Your task to perform on an android device: What's the news in Taiwan? Image 0: 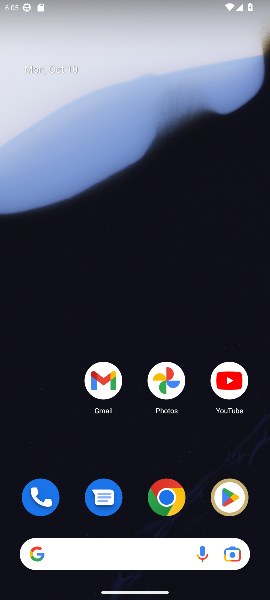
Step 0: drag from (111, 461) to (114, 205)
Your task to perform on an android device: What's the news in Taiwan? Image 1: 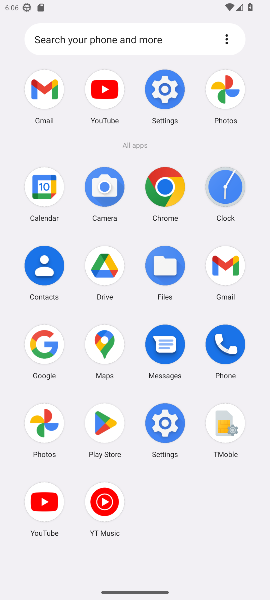
Step 1: click (153, 189)
Your task to perform on an android device: What's the news in Taiwan? Image 2: 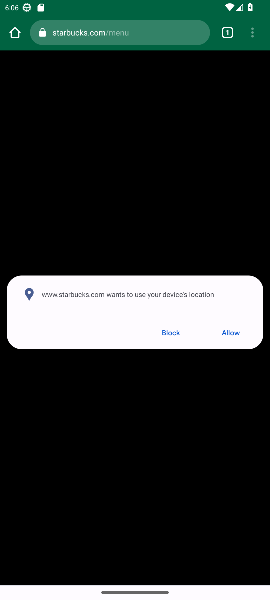
Step 2: press home button
Your task to perform on an android device: What's the news in Taiwan? Image 3: 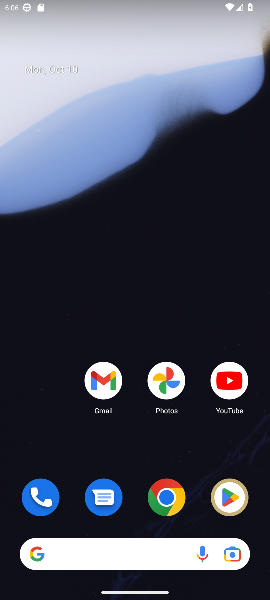
Step 3: drag from (98, 476) to (105, 241)
Your task to perform on an android device: What's the news in Taiwan? Image 4: 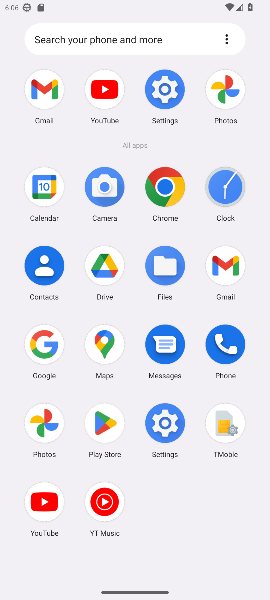
Step 4: click (45, 343)
Your task to perform on an android device: What's the news in Taiwan? Image 5: 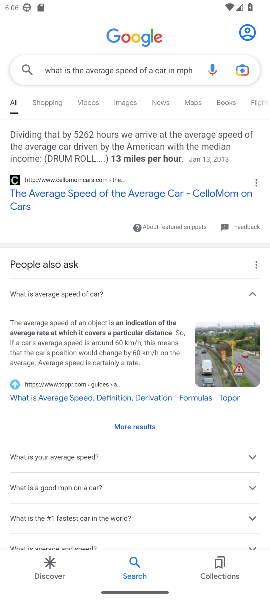
Step 5: click (148, 63)
Your task to perform on an android device: What's the news in Taiwan? Image 6: 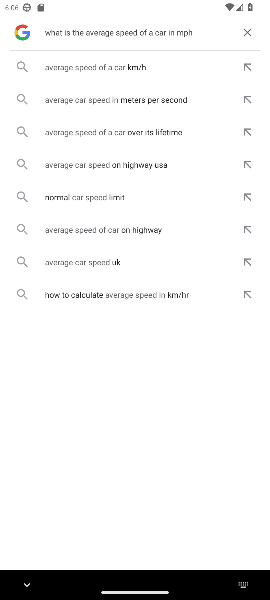
Step 6: click (245, 31)
Your task to perform on an android device: What's the news in Taiwan? Image 7: 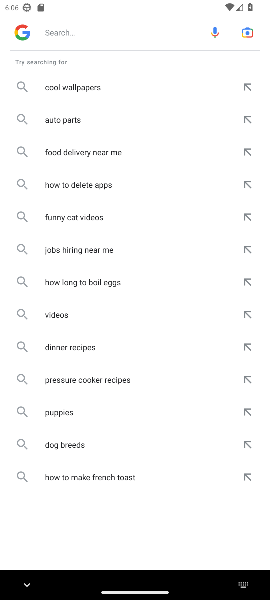
Step 7: click (102, 26)
Your task to perform on an android device: What's the news in Taiwan? Image 8: 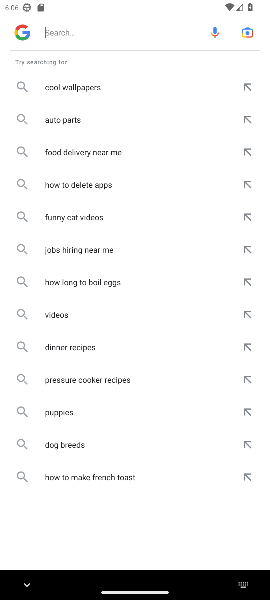
Step 8: type "What's the news in Taiwan? "
Your task to perform on an android device: What's the news in Taiwan? Image 9: 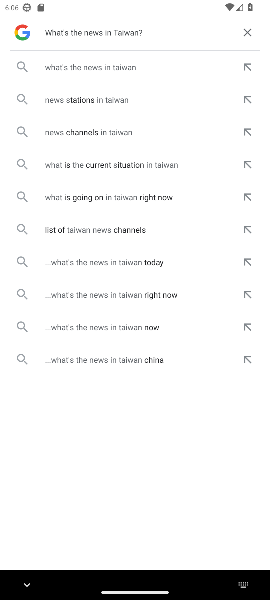
Step 9: click (90, 65)
Your task to perform on an android device: What's the news in Taiwan? Image 10: 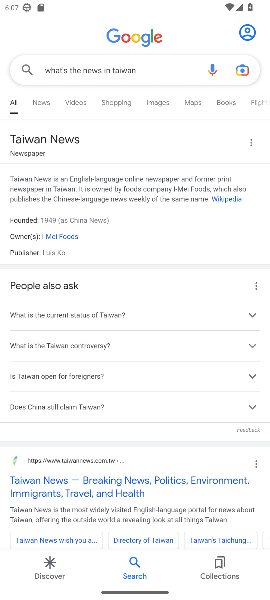
Step 10: task complete